Your task to perform on an android device: Open Youtube and go to the subscriptions tab Image 0: 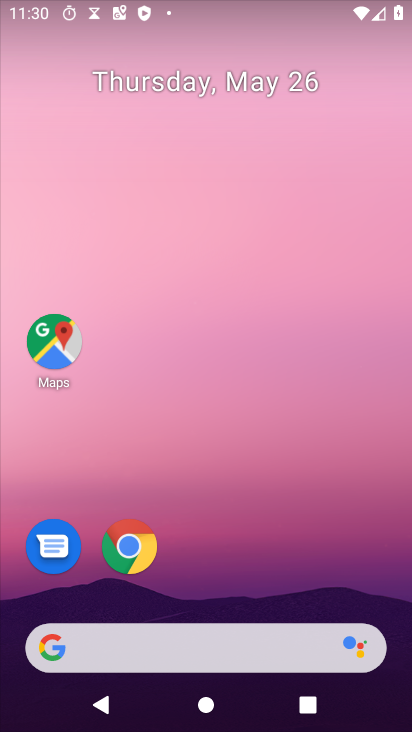
Step 0: drag from (344, 562) to (333, 133)
Your task to perform on an android device: Open Youtube and go to the subscriptions tab Image 1: 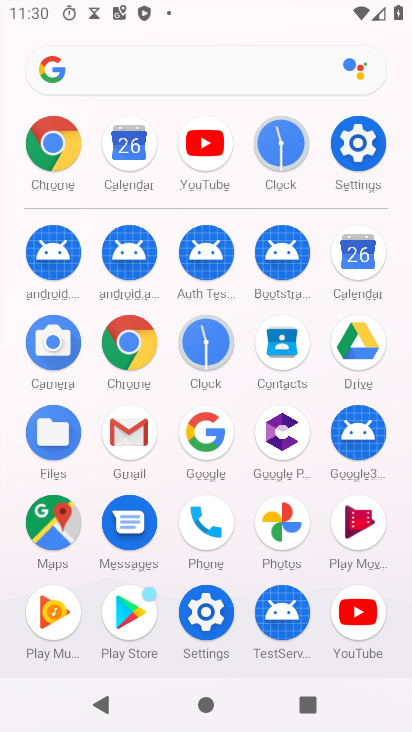
Step 1: click (380, 617)
Your task to perform on an android device: Open Youtube and go to the subscriptions tab Image 2: 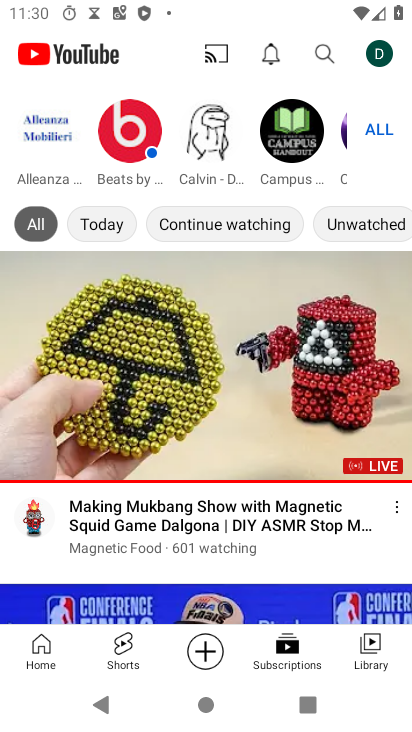
Step 2: click (303, 649)
Your task to perform on an android device: Open Youtube and go to the subscriptions tab Image 3: 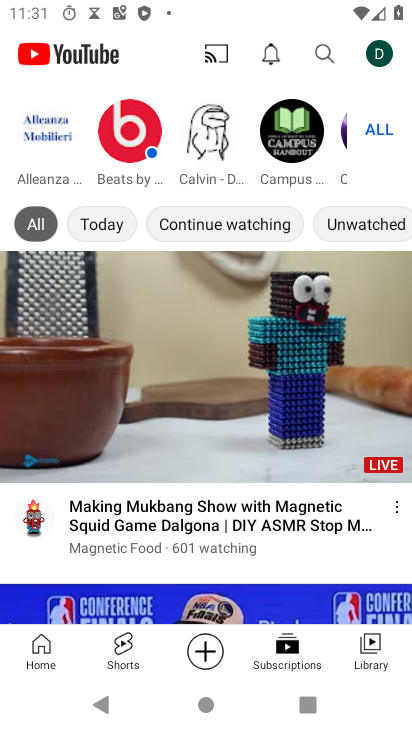
Step 3: task complete